Your task to perform on an android device: Play the last video I watched on Youtube Image 0: 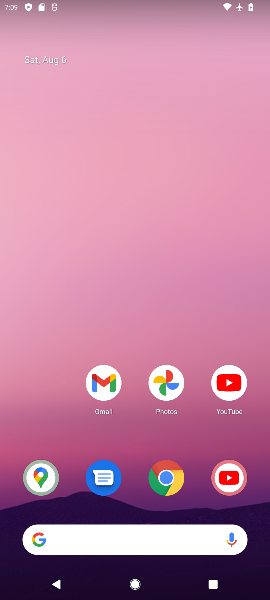
Step 0: press home button
Your task to perform on an android device: Play the last video I watched on Youtube Image 1: 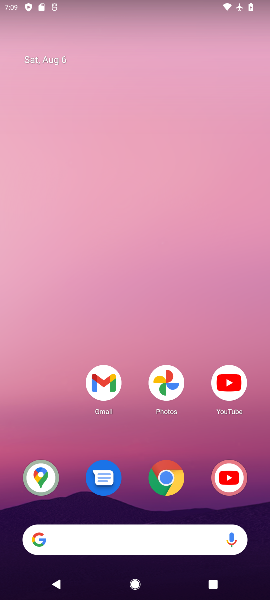
Step 1: click (226, 381)
Your task to perform on an android device: Play the last video I watched on Youtube Image 2: 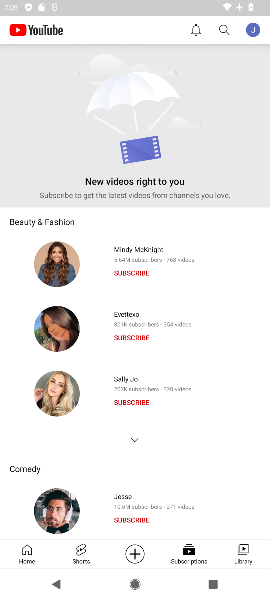
Step 2: click (246, 556)
Your task to perform on an android device: Play the last video I watched on Youtube Image 3: 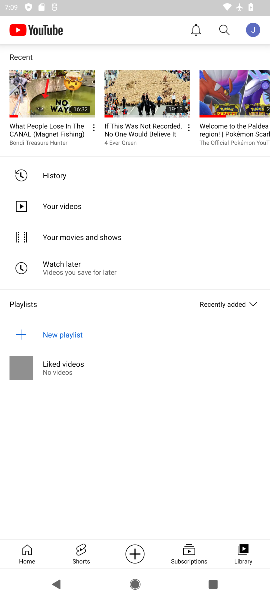
Step 3: click (63, 174)
Your task to perform on an android device: Play the last video I watched on Youtube Image 4: 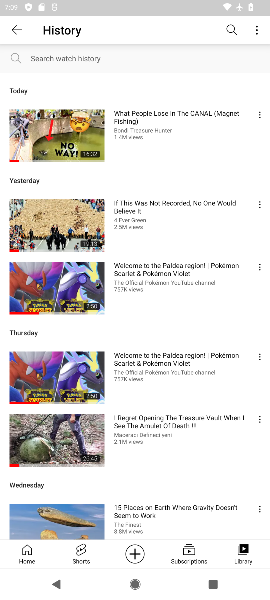
Step 4: click (62, 144)
Your task to perform on an android device: Play the last video I watched on Youtube Image 5: 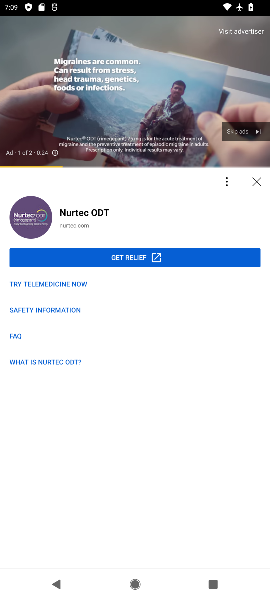
Step 5: click (252, 134)
Your task to perform on an android device: Play the last video I watched on Youtube Image 6: 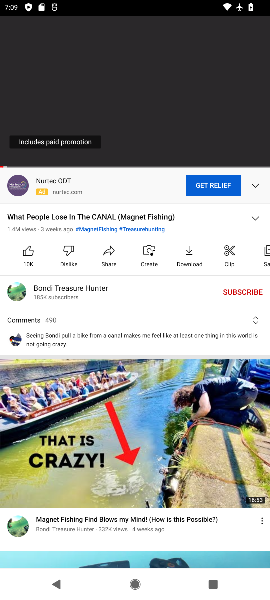
Step 6: task complete